Your task to perform on an android device: turn off translation in the chrome app Image 0: 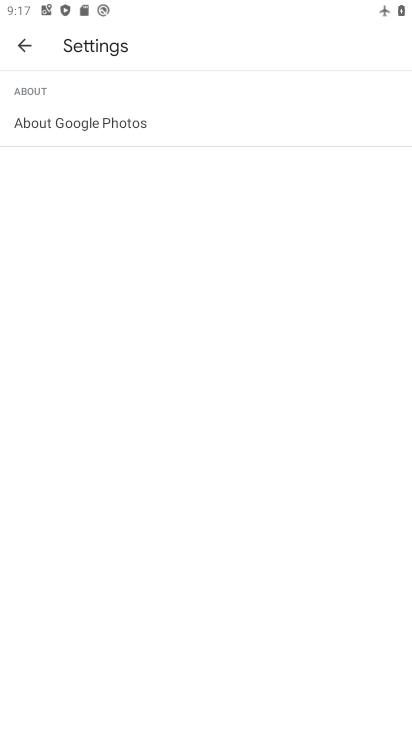
Step 0: press home button
Your task to perform on an android device: turn off translation in the chrome app Image 1: 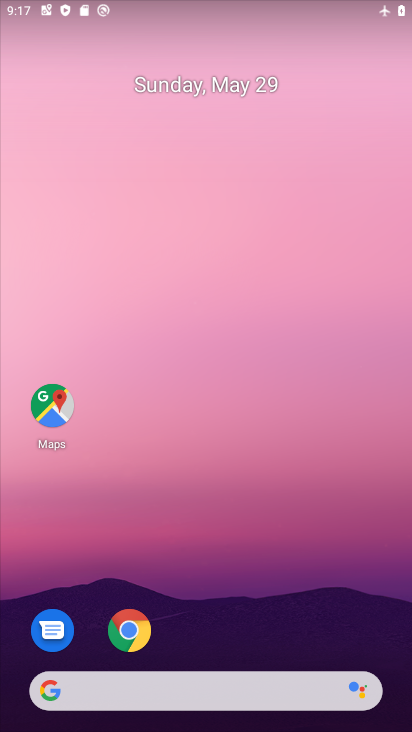
Step 1: click (132, 652)
Your task to perform on an android device: turn off translation in the chrome app Image 2: 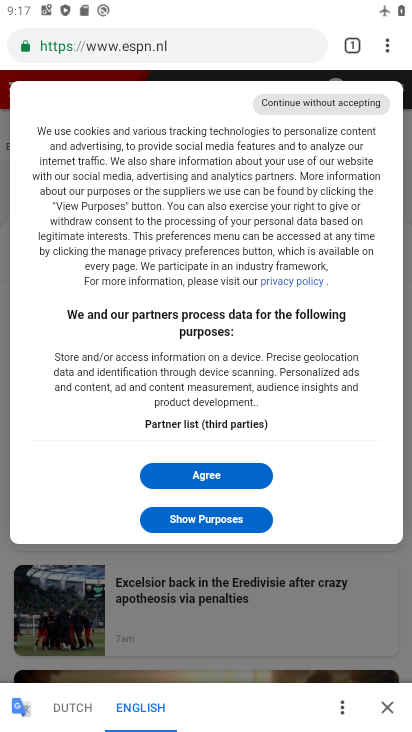
Step 2: click (395, 41)
Your task to perform on an android device: turn off translation in the chrome app Image 3: 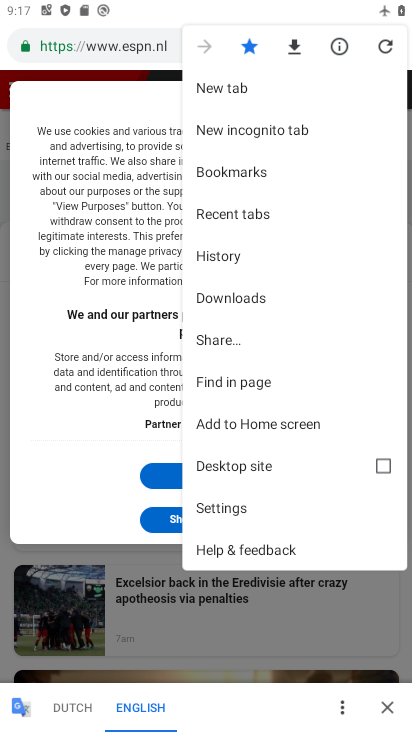
Step 3: click (235, 517)
Your task to perform on an android device: turn off translation in the chrome app Image 4: 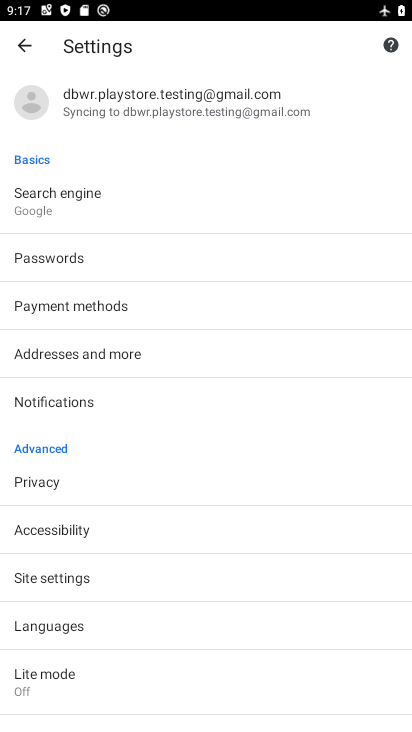
Step 4: click (170, 625)
Your task to perform on an android device: turn off translation in the chrome app Image 5: 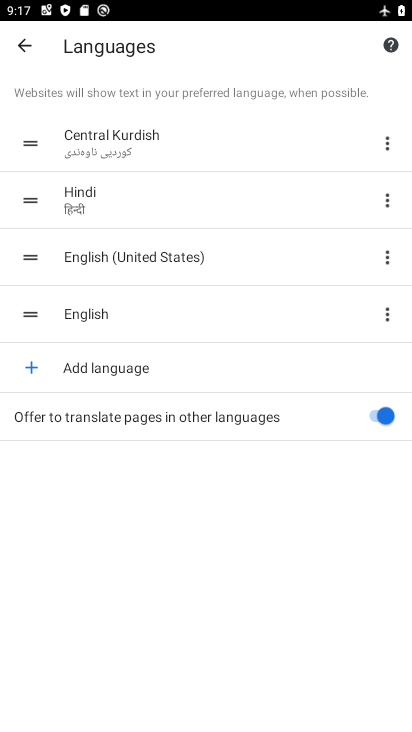
Step 5: click (374, 414)
Your task to perform on an android device: turn off translation in the chrome app Image 6: 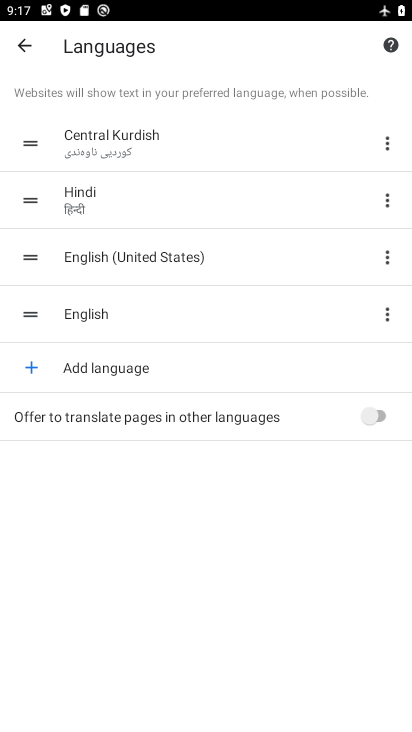
Step 6: task complete